Your task to perform on an android device: See recent photos Image 0: 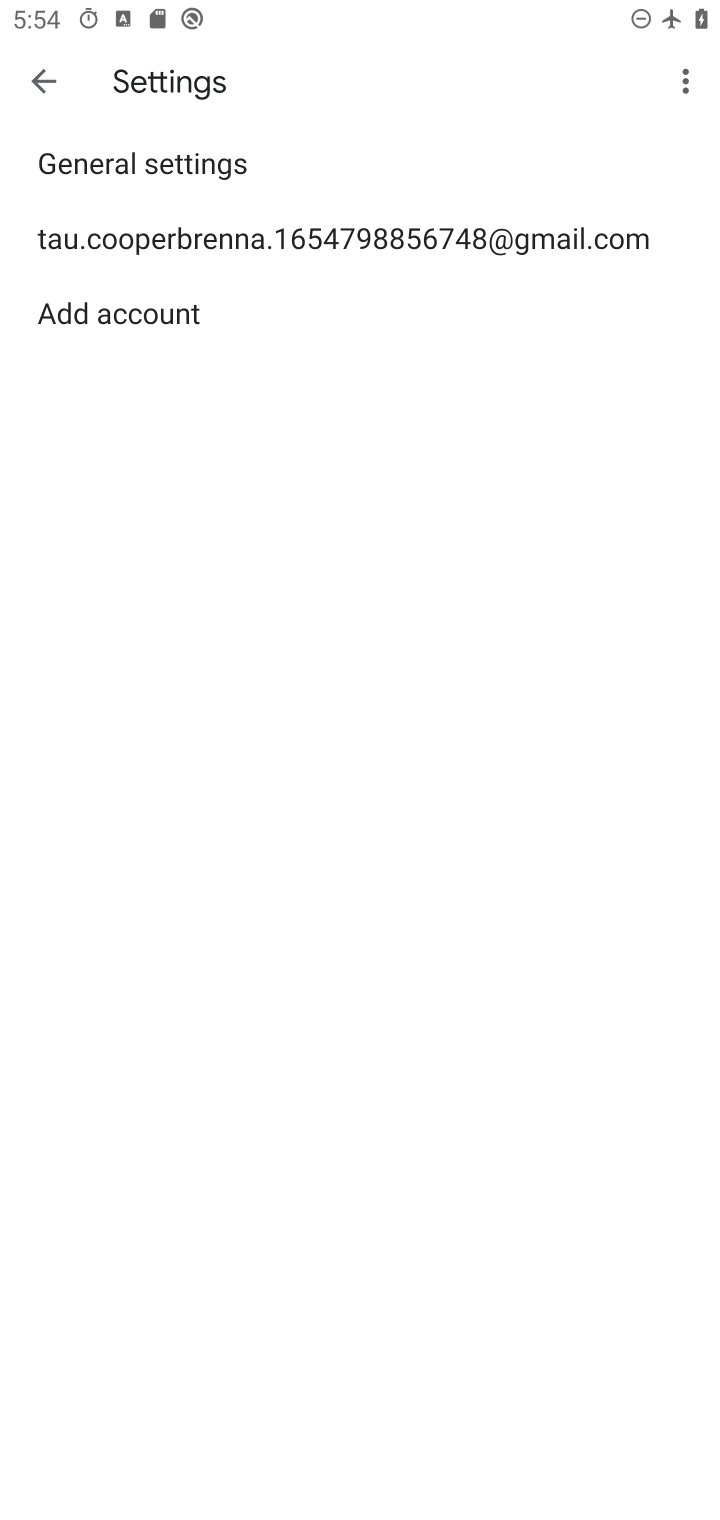
Step 0: press home button
Your task to perform on an android device: See recent photos Image 1: 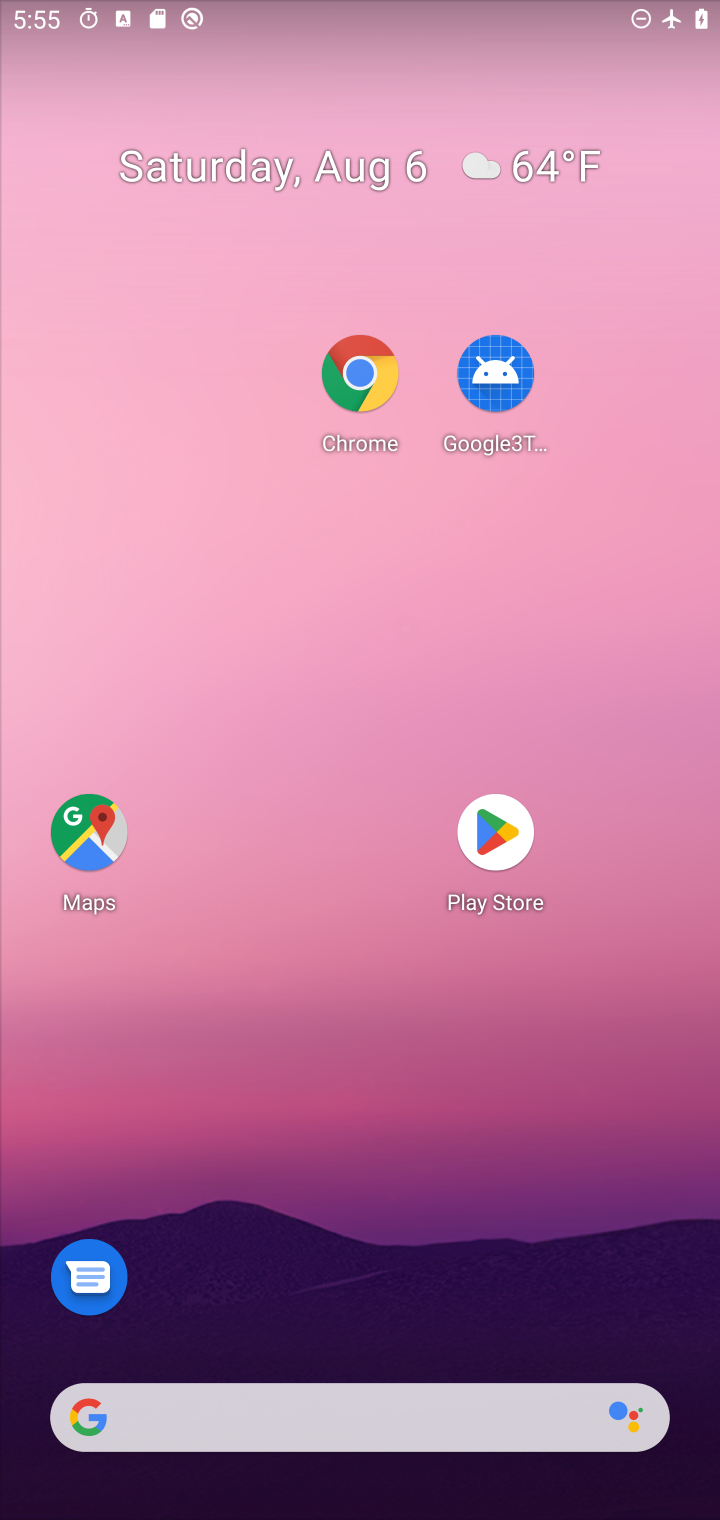
Step 1: drag from (416, 1420) to (245, 150)
Your task to perform on an android device: See recent photos Image 2: 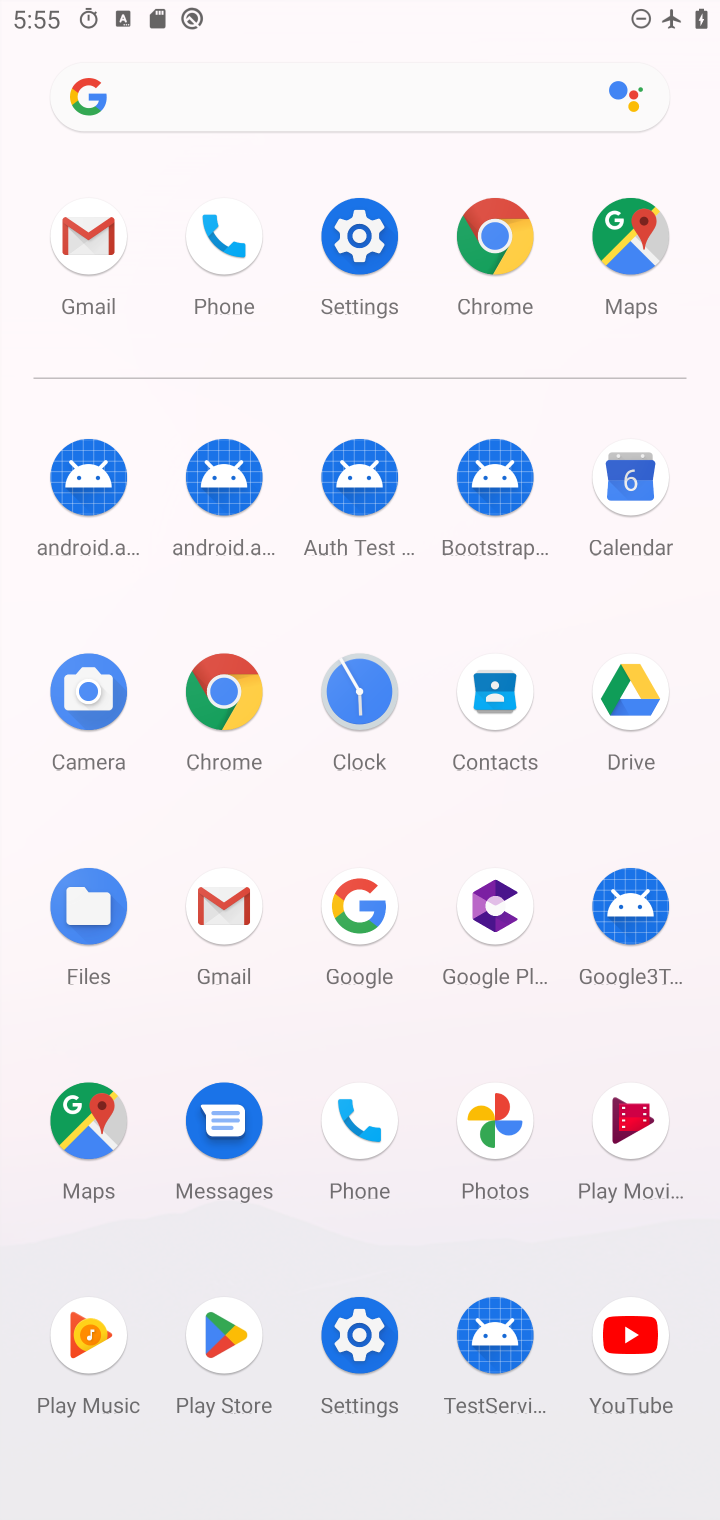
Step 2: click (500, 1131)
Your task to perform on an android device: See recent photos Image 3: 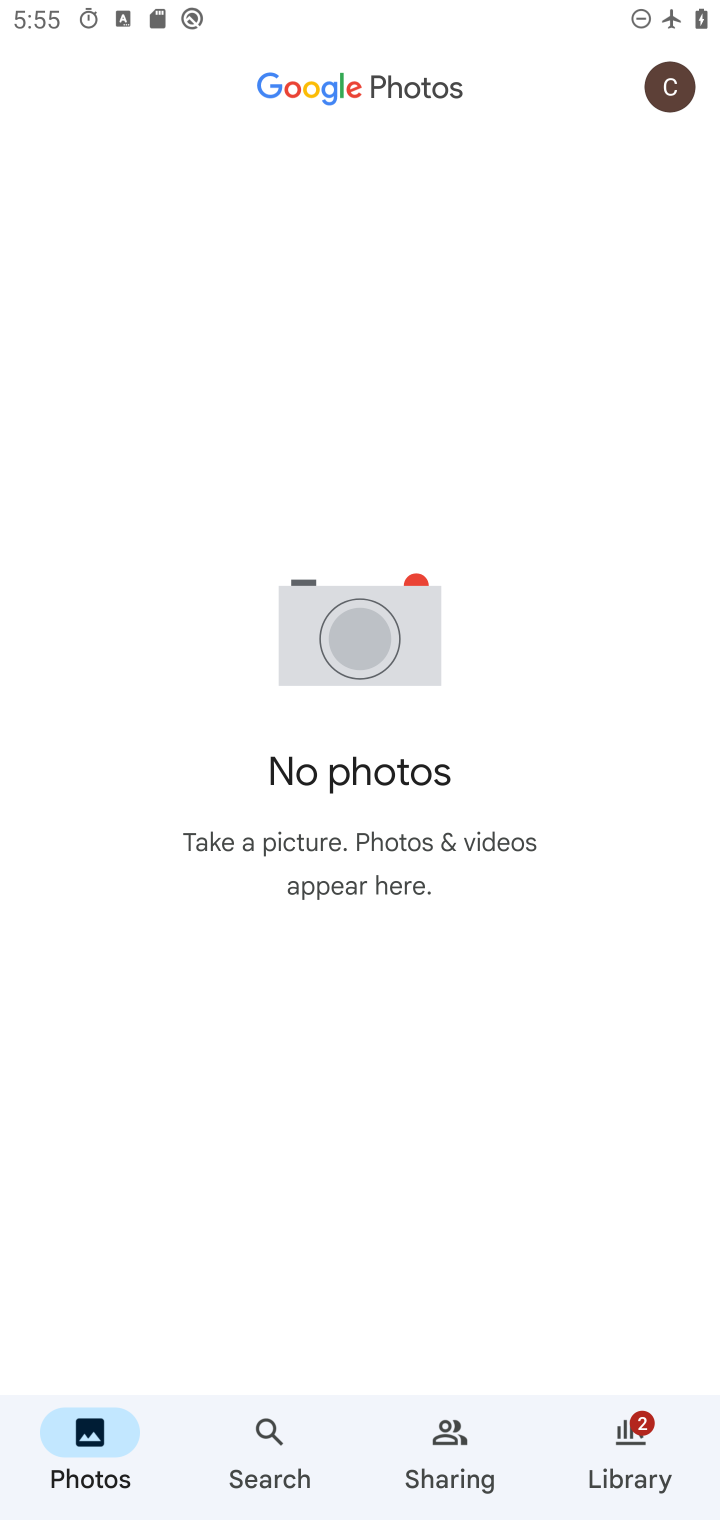
Step 3: task complete